Your task to perform on an android device: add a contact in the contacts app Image 0: 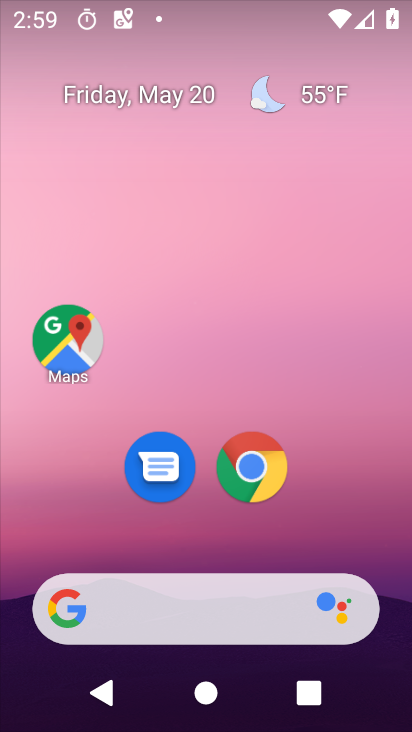
Step 0: drag from (218, 549) to (169, 26)
Your task to perform on an android device: add a contact in the contacts app Image 1: 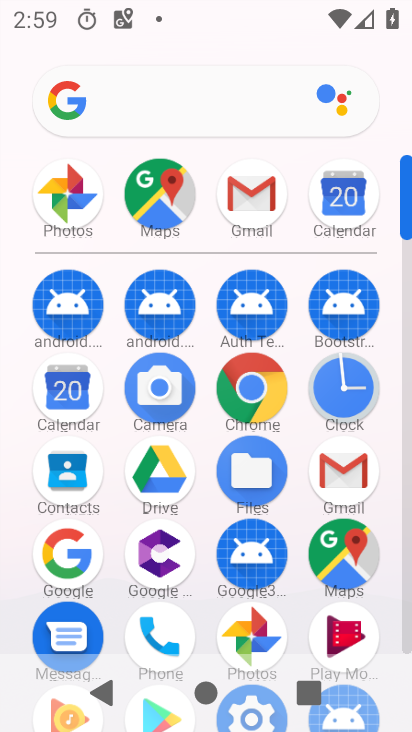
Step 1: click (70, 467)
Your task to perform on an android device: add a contact in the contacts app Image 2: 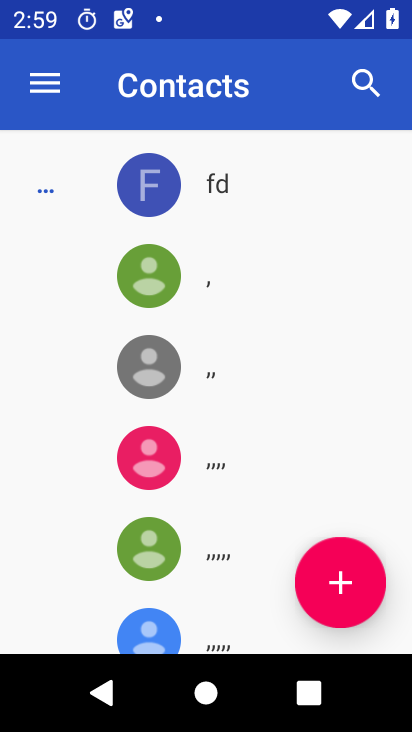
Step 2: click (335, 592)
Your task to perform on an android device: add a contact in the contacts app Image 3: 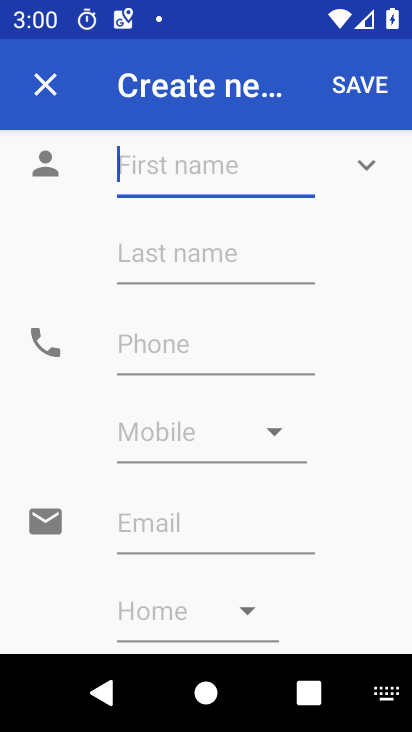
Step 3: type "awawawsdsdsdsd"
Your task to perform on an android device: add a contact in the contacts app Image 4: 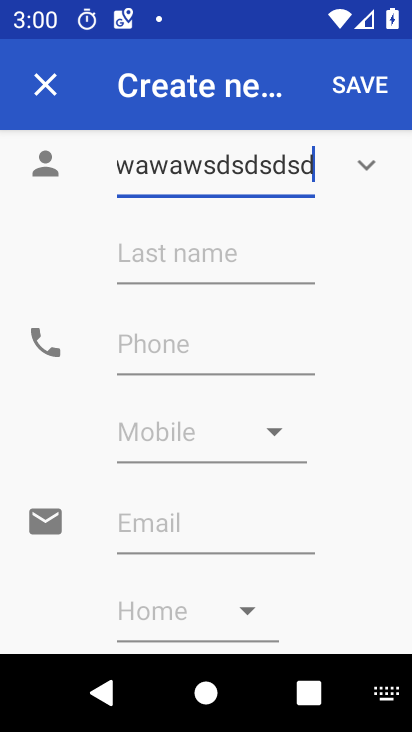
Step 4: click (172, 358)
Your task to perform on an android device: add a contact in the contacts app Image 5: 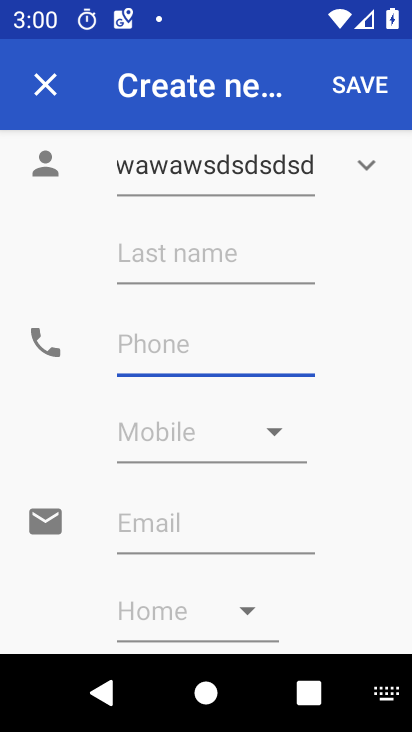
Step 5: type "9876543210"
Your task to perform on an android device: add a contact in the contacts app Image 6: 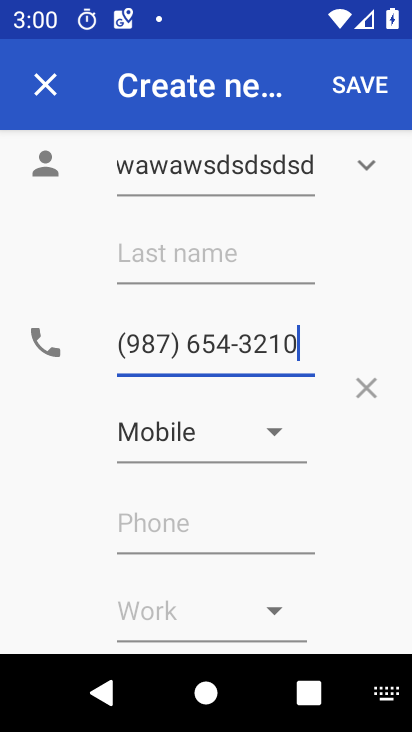
Step 6: click (370, 60)
Your task to perform on an android device: add a contact in the contacts app Image 7: 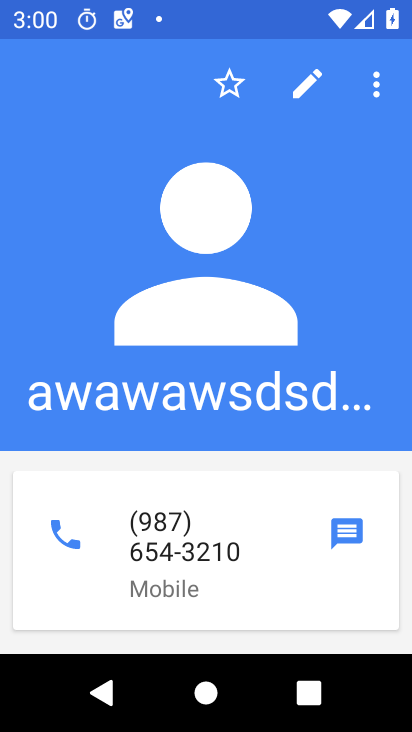
Step 7: task complete